Your task to perform on an android device: Open the calendar app, open the side menu, and click the "Day" option Image 0: 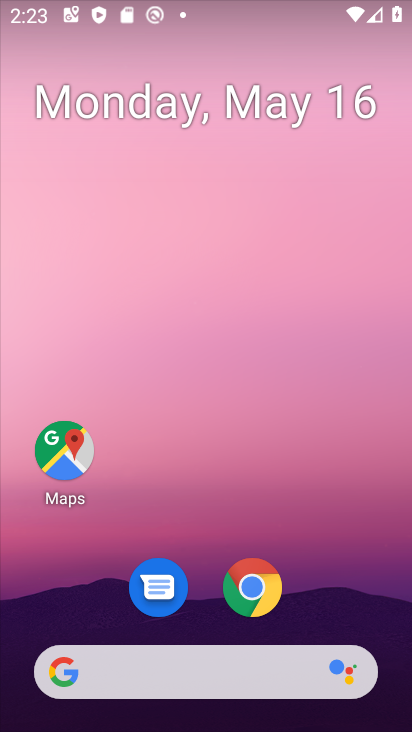
Step 0: drag from (373, 631) to (274, 270)
Your task to perform on an android device: Open the calendar app, open the side menu, and click the "Day" option Image 1: 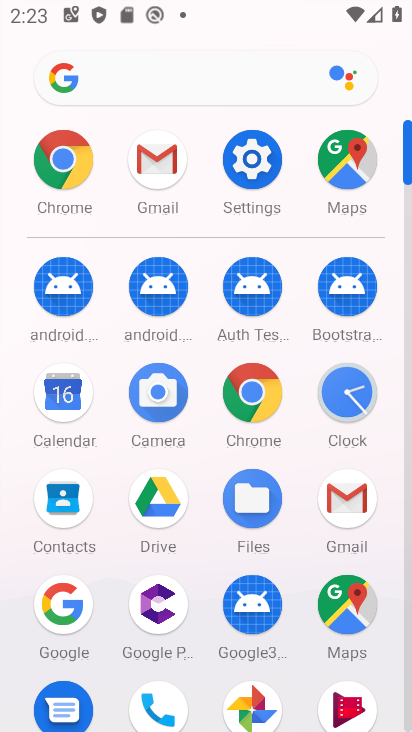
Step 1: click (77, 393)
Your task to perform on an android device: Open the calendar app, open the side menu, and click the "Day" option Image 2: 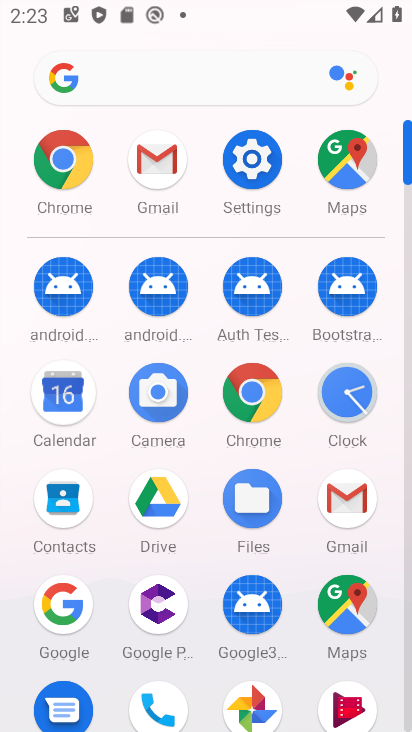
Step 2: click (57, 383)
Your task to perform on an android device: Open the calendar app, open the side menu, and click the "Day" option Image 3: 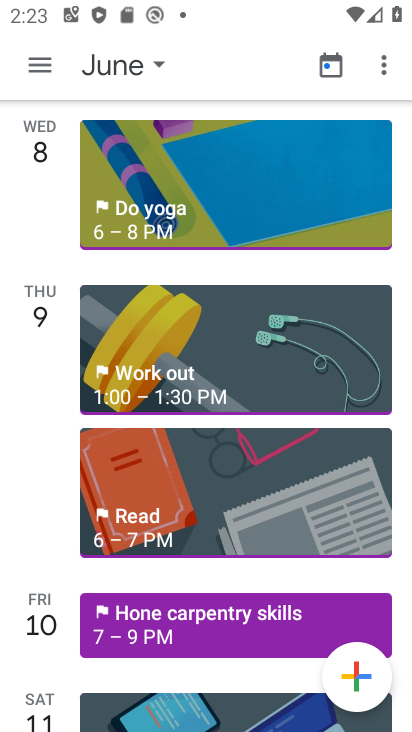
Step 3: click (50, 48)
Your task to perform on an android device: Open the calendar app, open the side menu, and click the "Day" option Image 4: 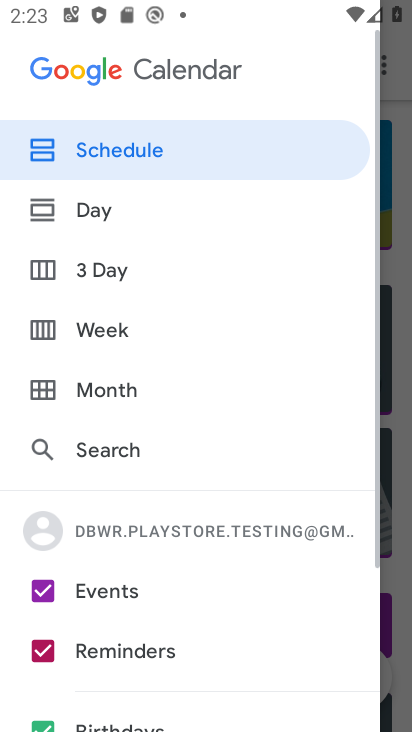
Step 4: click (73, 202)
Your task to perform on an android device: Open the calendar app, open the side menu, and click the "Day" option Image 5: 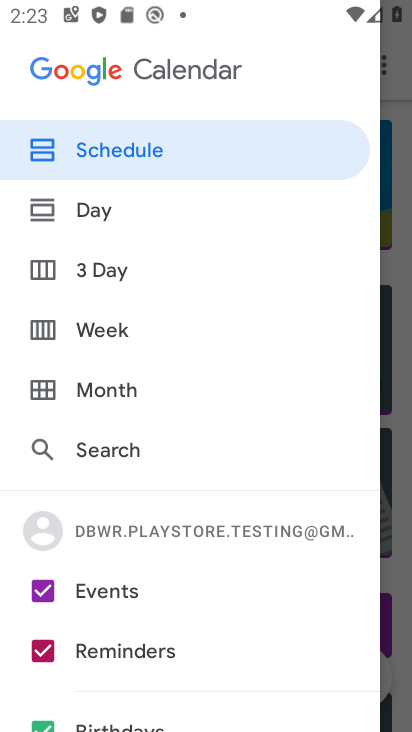
Step 5: click (89, 216)
Your task to perform on an android device: Open the calendar app, open the side menu, and click the "Day" option Image 6: 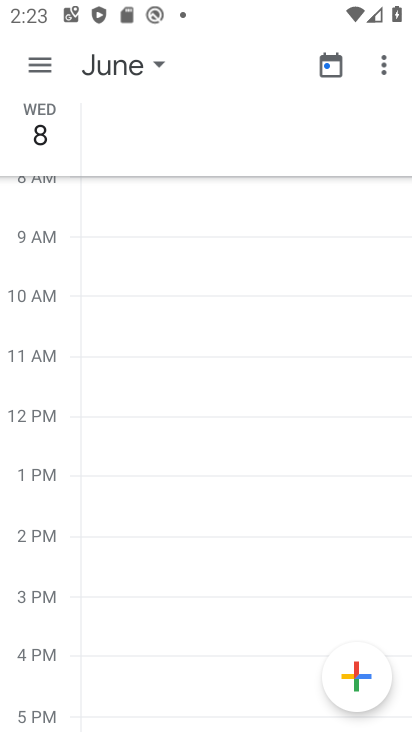
Step 6: click (40, 67)
Your task to perform on an android device: Open the calendar app, open the side menu, and click the "Day" option Image 7: 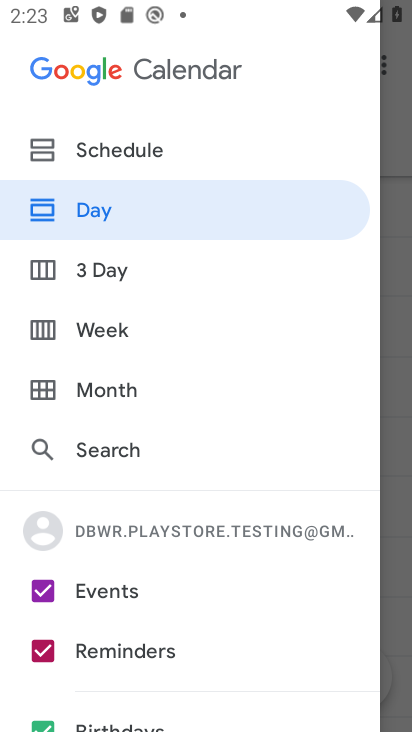
Step 7: click (401, 197)
Your task to perform on an android device: Open the calendar app, open the side menu, and click the "Day" option Image 8: 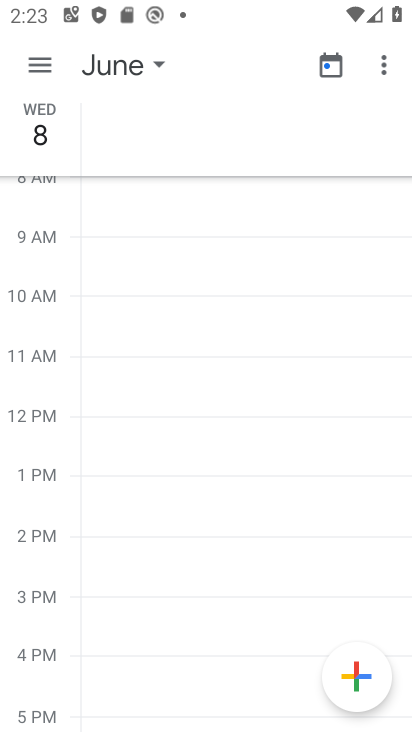
Step 8: click (373, 204)
Your task to perform on an android device: Open the calendar app, open the side menu, and click the "Day" option Image 9: 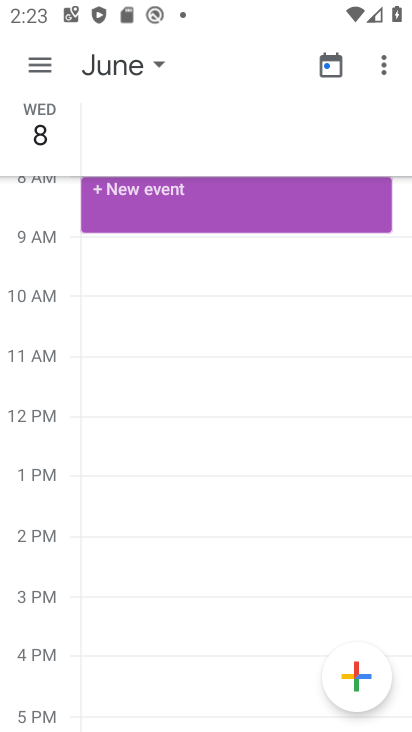
Step 9: task complete